Your task to perform on an android device: Show me productivity apps on the Play Store Image 0: 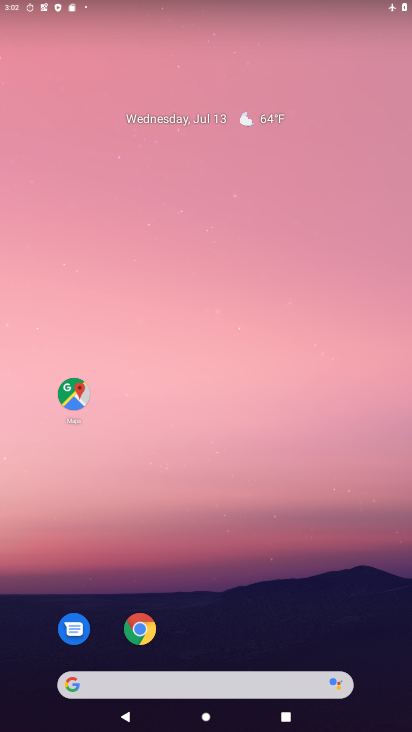
Step 0: drag from (272, 663) to (355, 1)
Your task to perform on an android device: Show me productivity apps on the Play Store Image 1: 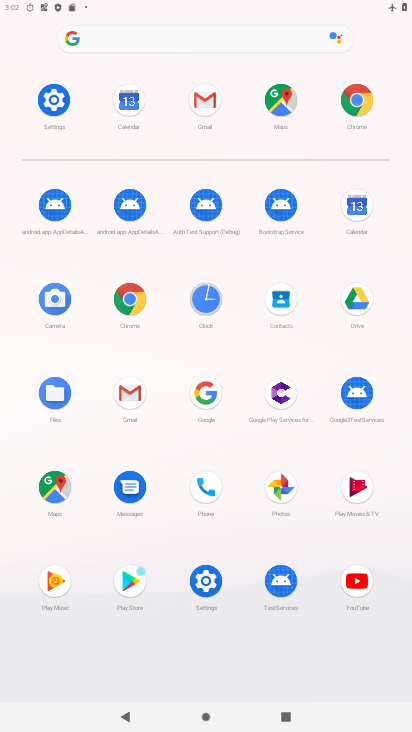
Step 1: click (124, 583)
Your task to perform on an android device: Show me productivity apps on the Play Store Image 2: 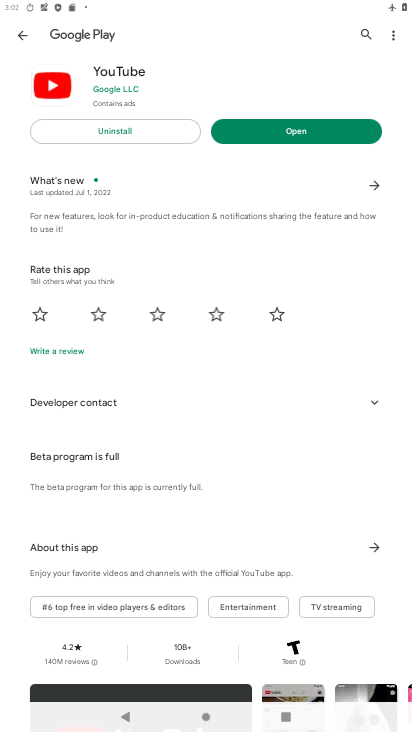
Step 2: press back button
Your task to perform on an android device: Show me productivity apps on the Play Store Image 3: 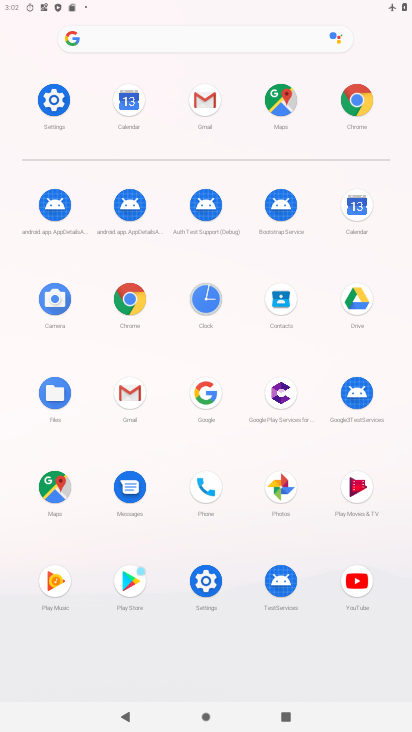
Step 3: click (121, 579)
Your task to perform on an android device: Show me productivity apps on the Play Store Image 4: 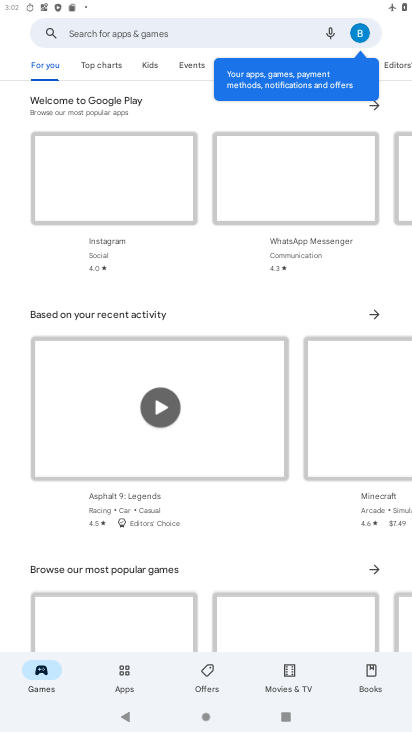
Step 4: click (129, 674)
Your task to perform on an android device: Show me productivity apps on the Play Store Image 5: 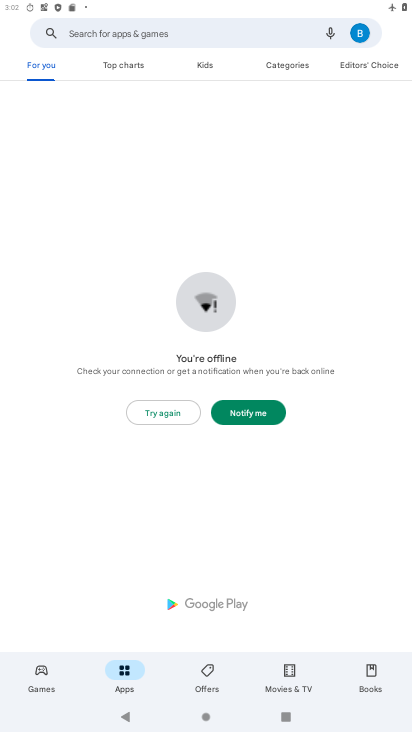
Step 5: click (148, 408)
Your task to perform on an android device: Show me productivity apps on the Play Store Image 6: 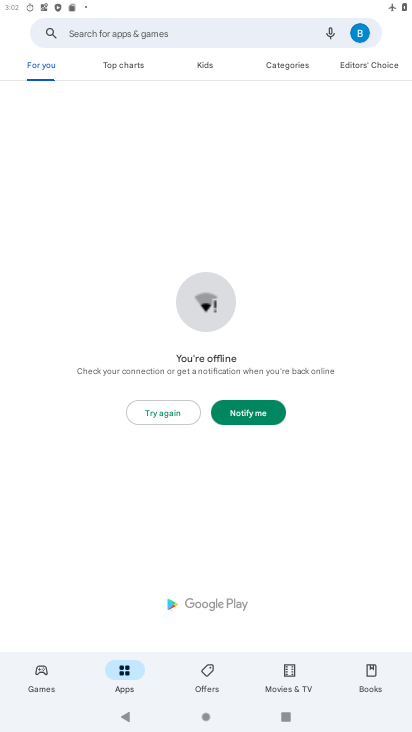
Step 6: task complete